Your task to perform on an android device: delete a single message in the gmail app Image 0: 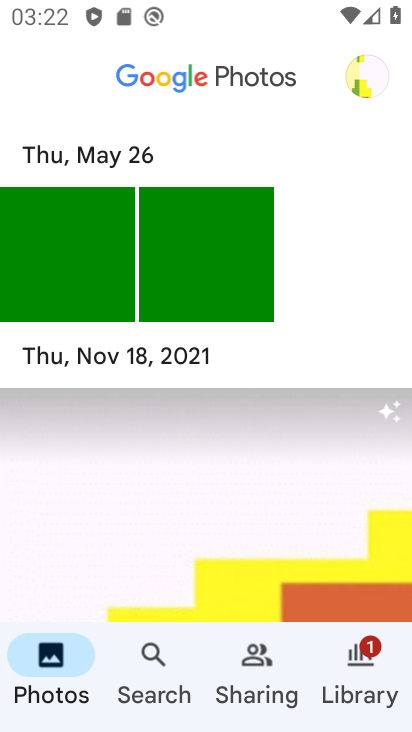
Step 0: press home button
Your task to perform on an android device: delete a single message in the gmail app Image 1: 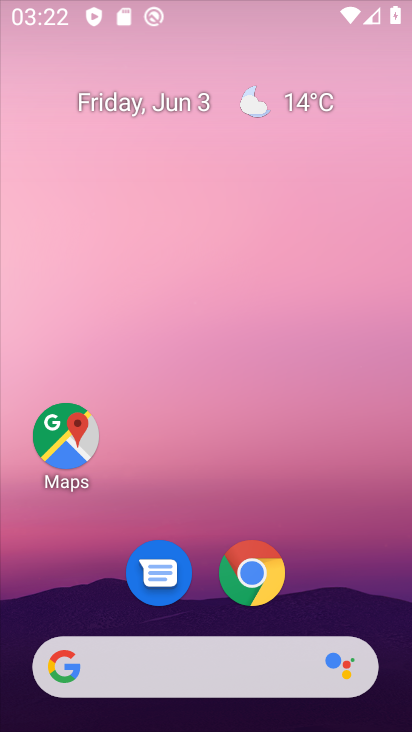
Step 1: drag from (157, 681) to (264, 3)
Your task to perform on an android device: delete a single message in the gmail app Image 2: 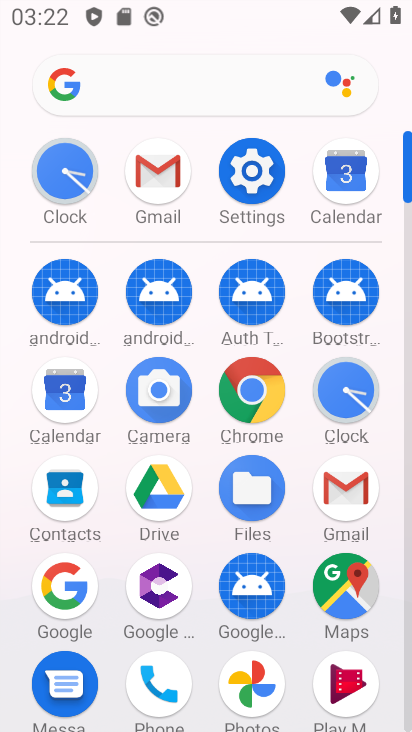
Step 2: click (348, 478)
Your task to perform on an android device: delete a single message in the gmail app Image 3: 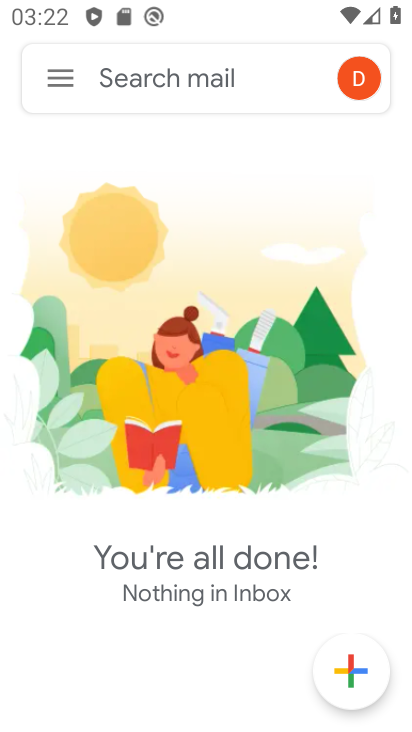
Step 3: click (63, 68)
Your task to perform on an android device: delete a single message in the gmail app Image 4: 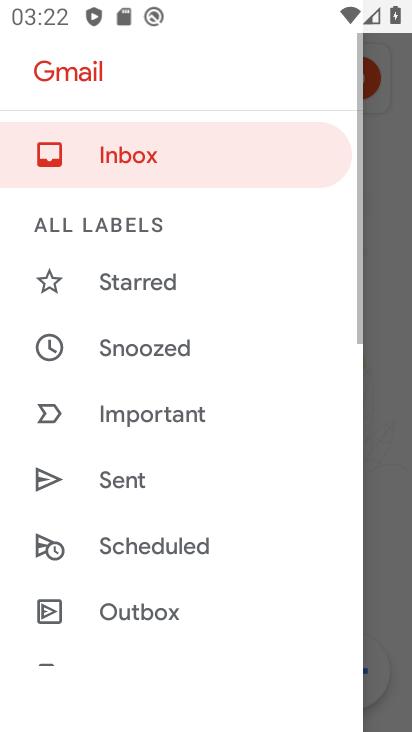
Step 4: drag from (152, 571) to (173, 99)
Your task to perform on an android device: delete a single message in the gmail app Image 5: 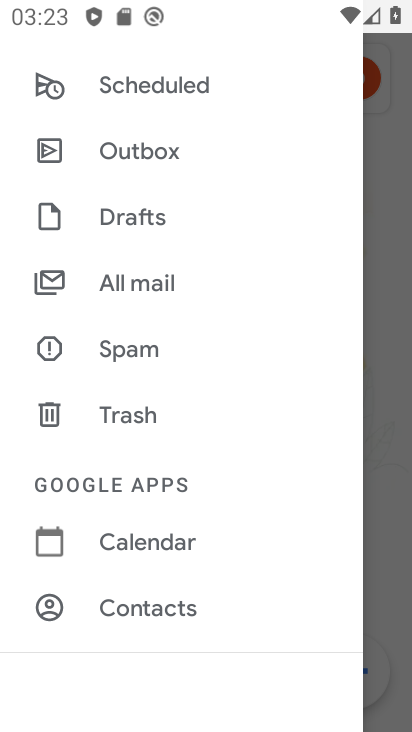
Step 5: click (384, 208)
Your task to perform on an android device: delete a single message in the gmail app Image 6: 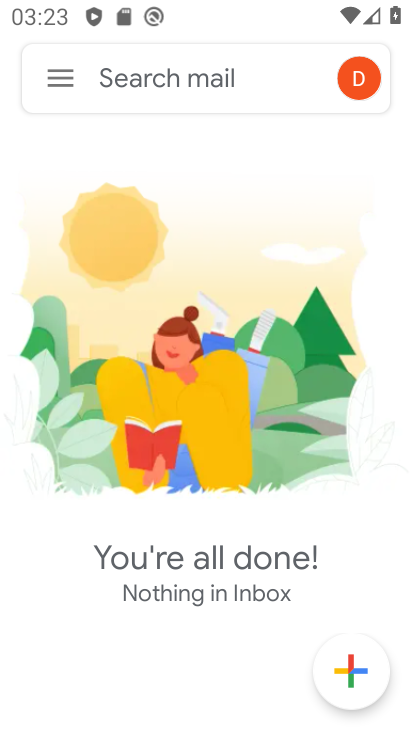
Step 6: task complete